Your task to perform on an android device: turn on improve location accuracy Image 0: 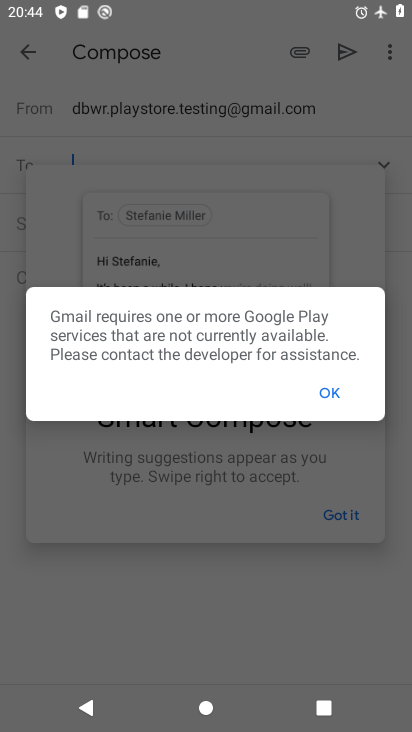
Step 0: press home button
Your task to perform on an android device: turn on improve location accuracy Image 1: 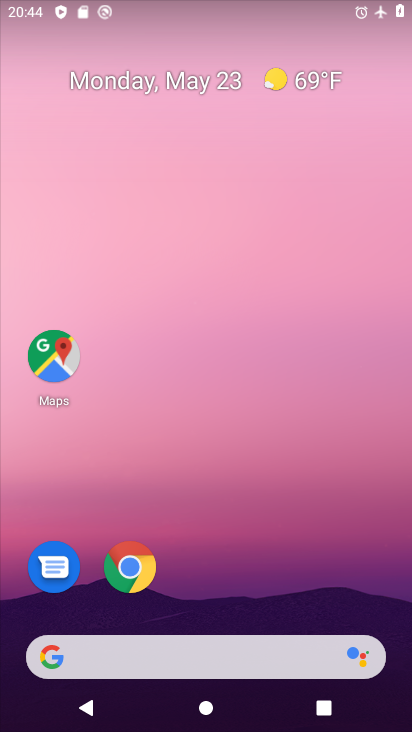
Step 1: drag from (269, 585) to (316, 6)
Your task to perform on an android device: turn on improve location accuracy Image 2: 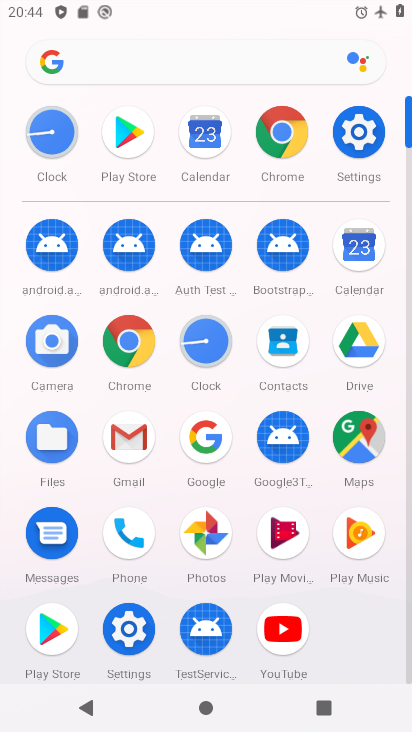
Step 2: click (353, 171)
Your task to perform on an android device: turn on improve location accuracy Image 3: 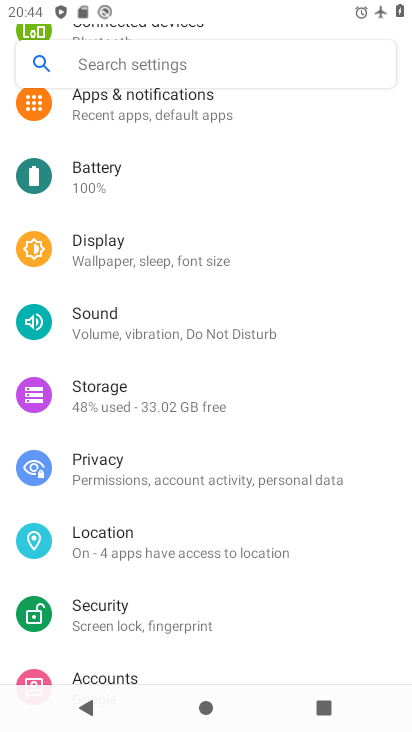
Step 3: click (164, 548)
Your task to perform on an android device: turn on improve location accuracy Image 4: 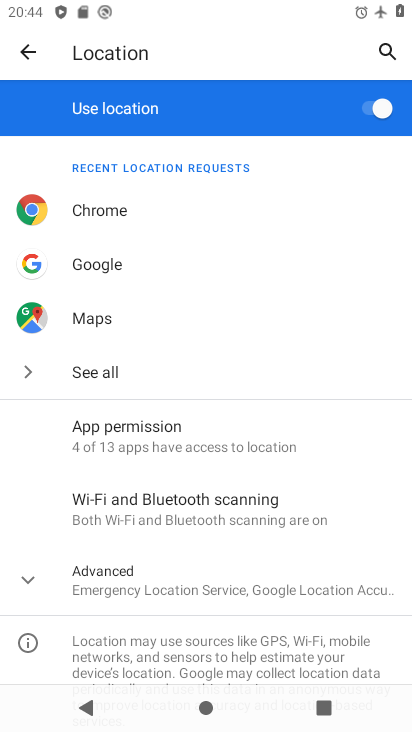
Step 4: click (195, 588)
Your task to perform on an android device: turn on improve location accuracy Image 5: 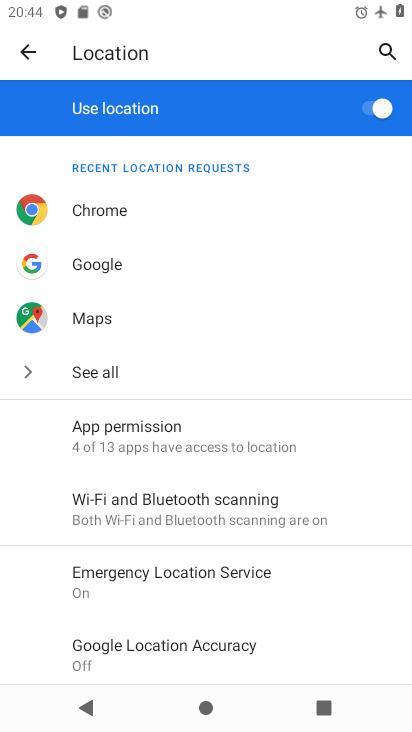
Step 5: drag from (216, 585) to (220, 412)
Your task to perform on an android device: turn on improve location accuracy Image 6: 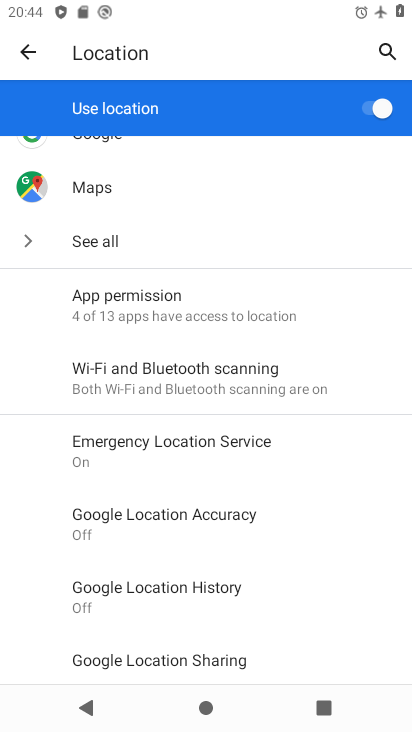
Step 6: click (185, 527)
Your task to perform on an android device: turn on improve location accuracy Image 7: 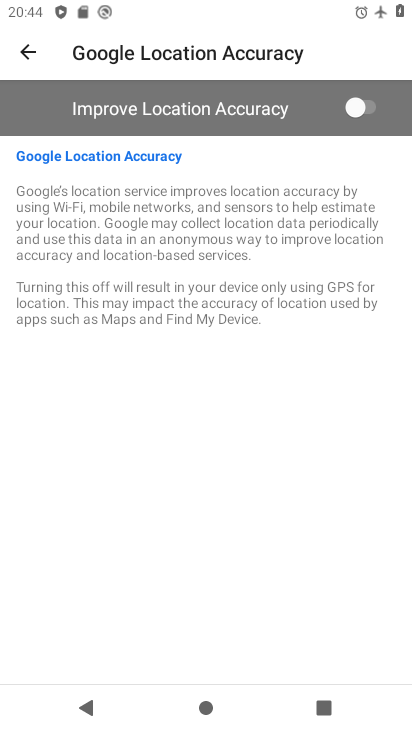
Step 7: click (353, 117)
Your task to perform on an android device: turn on improve location accuracy Image 8: 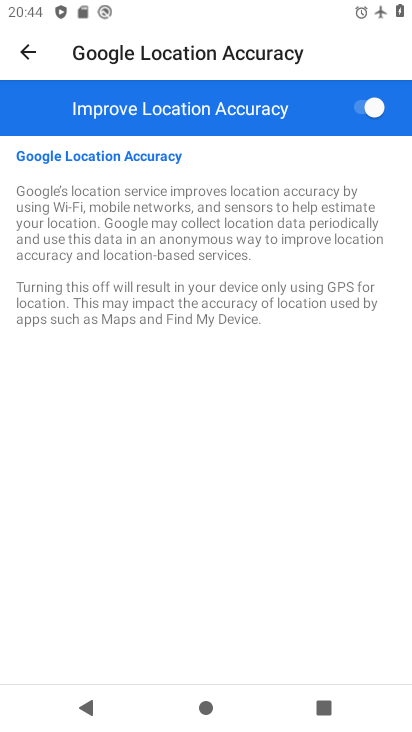
Step 8: task complete